Your task to perform on an android device: set the stopwatch Image 0: 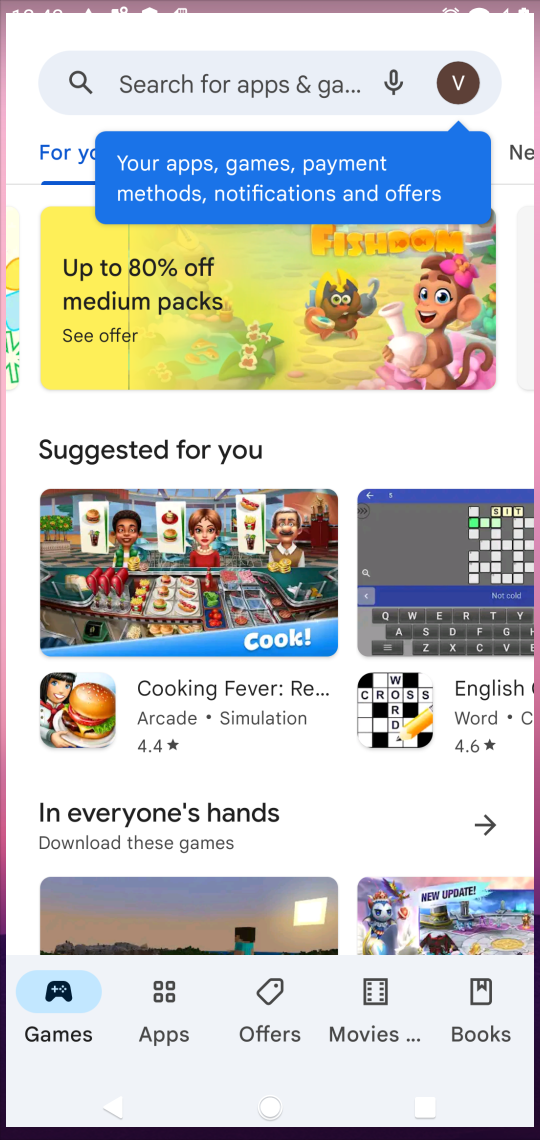
Step 0: press home button
Your task to perform on an android device: set the stopwatch Image 1: 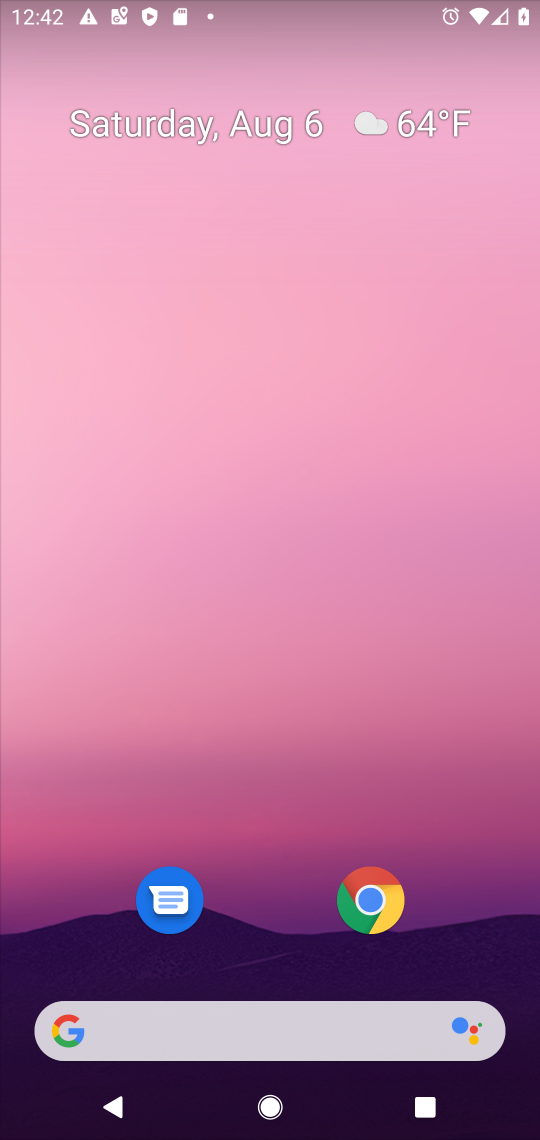
Step 1: drag from (266, 988) to (314, 206)
Your task to perform on an android device: set the stopwatch Image 2: 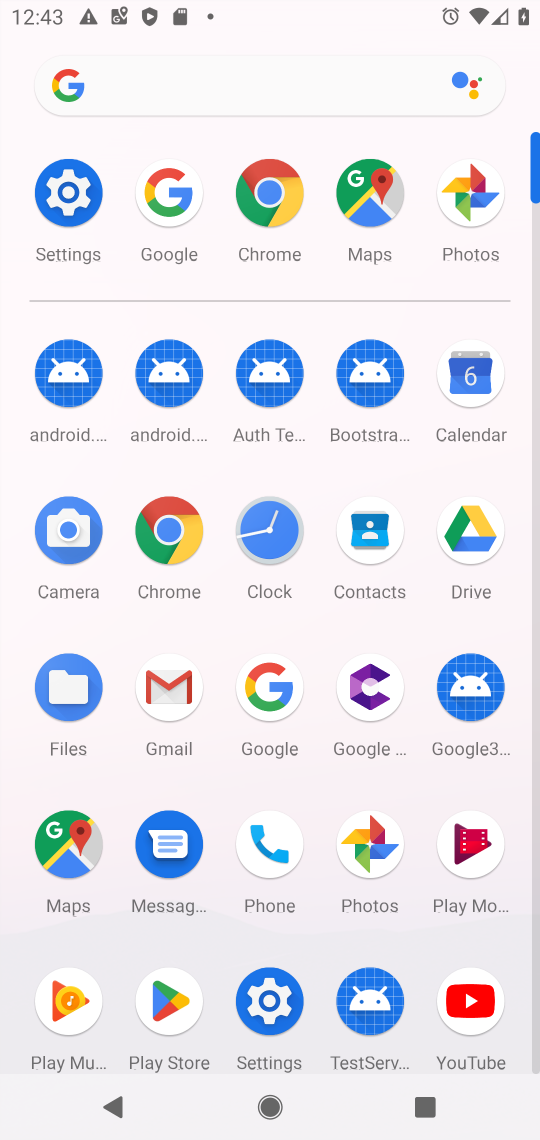
Step 2: click (259, 539)
Your task to perform on an android device: set the stopwatch Image 3: 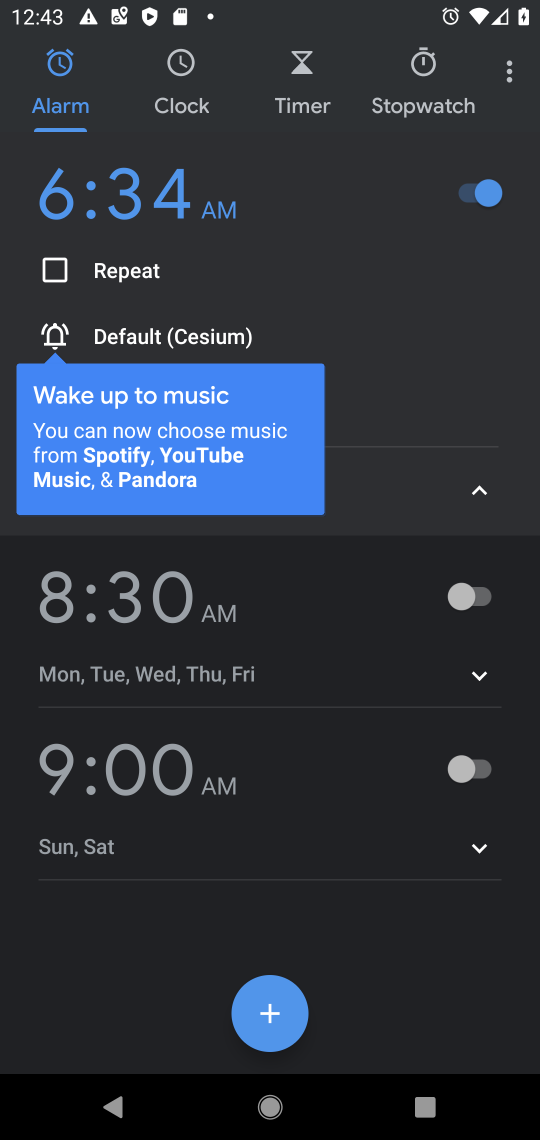
Step 3: click (420, 69)
Your task to perform on an android device: set the stopwatch Image 4: 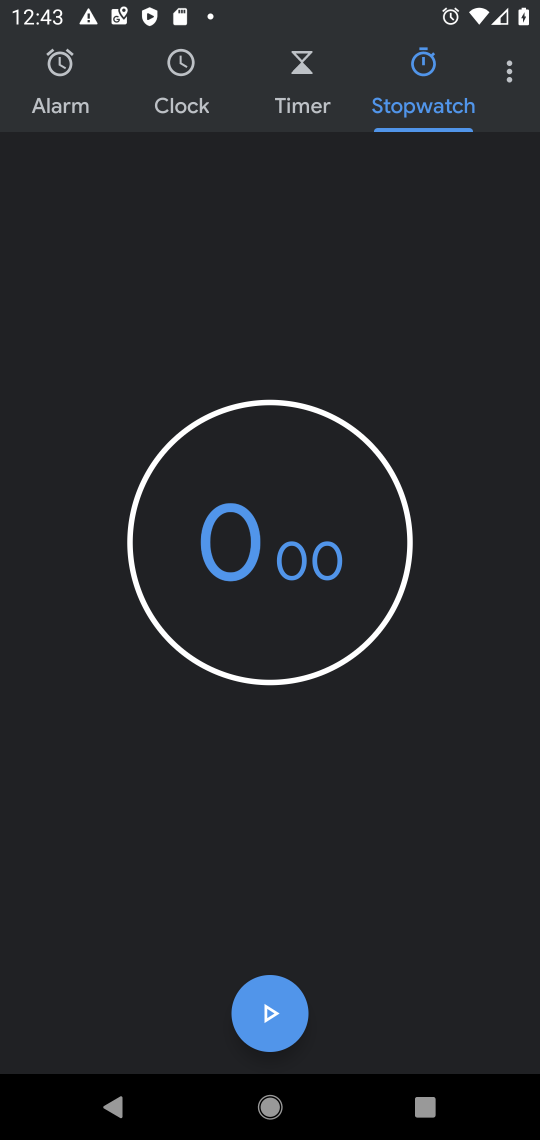
Step 4: click (218, 546)
Your task to perform on an android device: set the stopwatch Image 5: 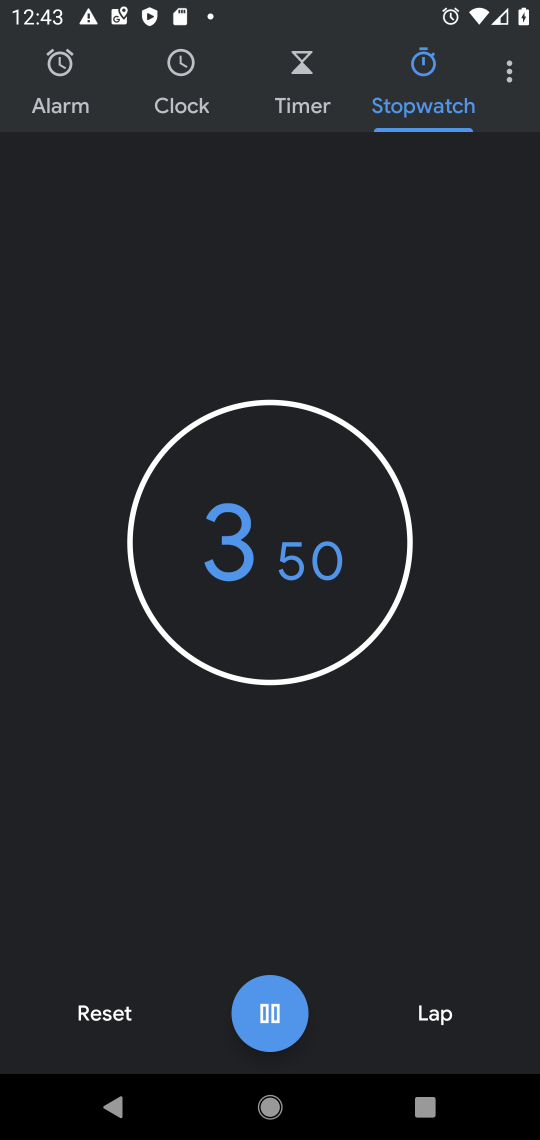
Step 5: type "7676"
Your task to perform on an android device: set the stopwatch Image 6: 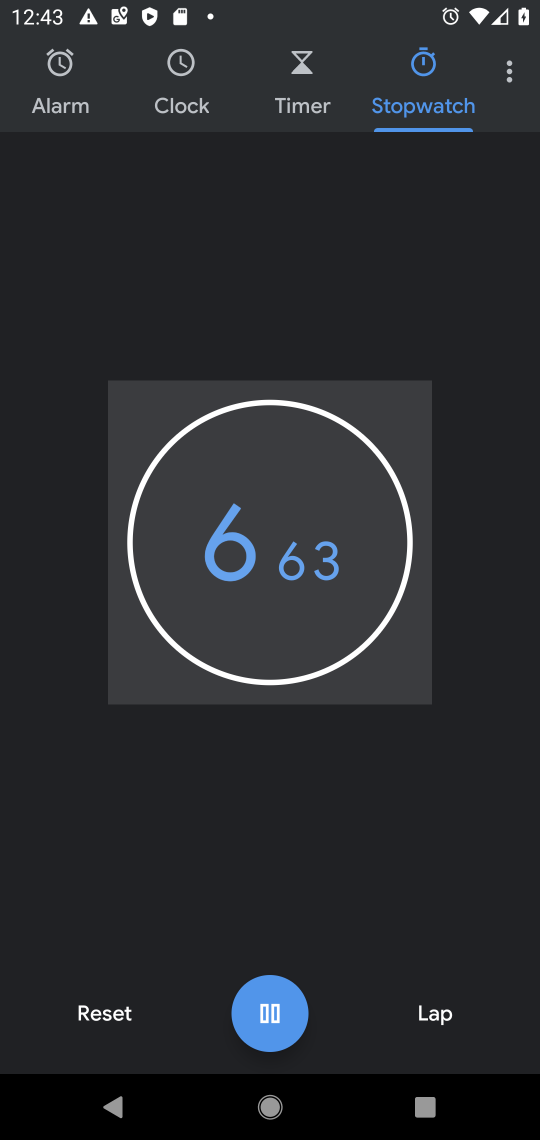
Step 6: task complete